Your task to perform on an android device: turn notification dots on Image 0: 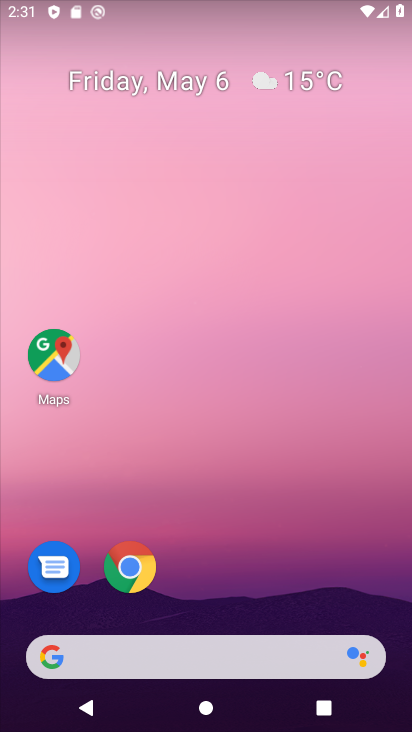
Step 0: drag from (179, 628) to (295, 56)
Your task to perform on an android device: turn notification dots on Image 1: 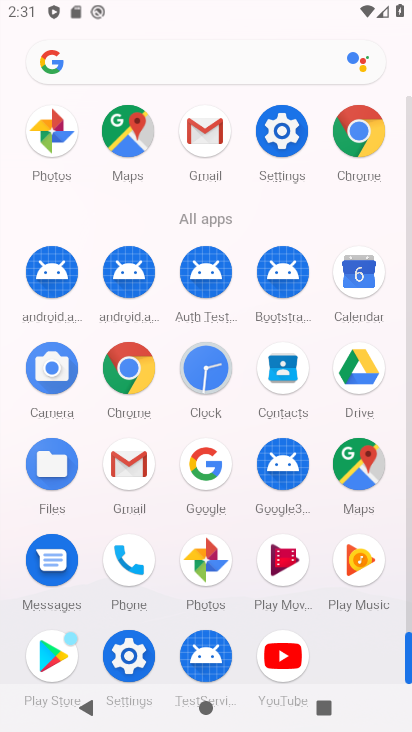
Step 1: click (120, 671)
Your task to perform on an android device: turn notification dots on Image 2: 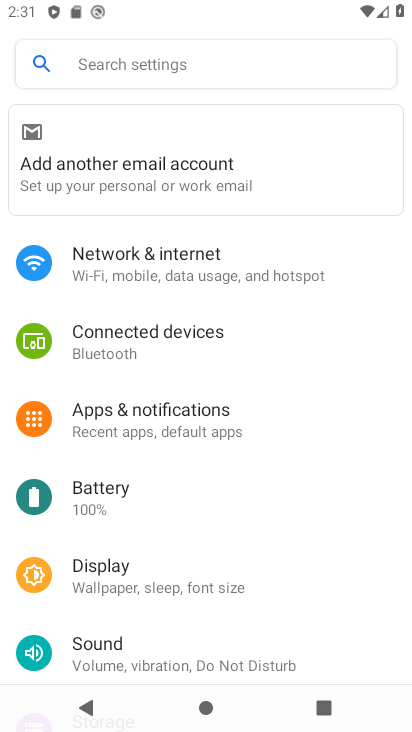
Step 2: click (188, 431)
Your task to perform on an android device: turn notification dots on Image 3: 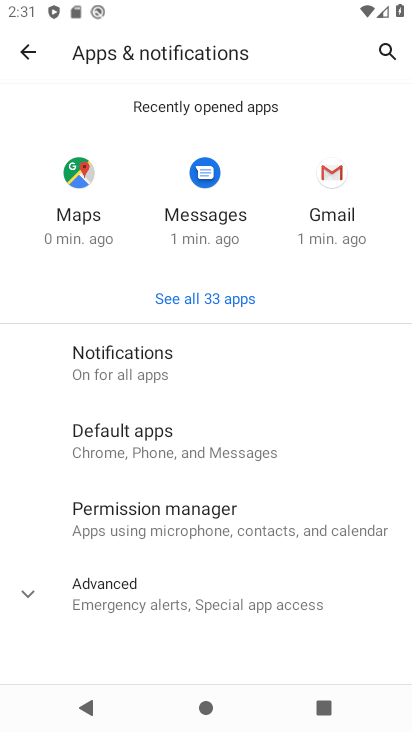
Step 3: click (172, 382)
Your task to perform on an android device: turn notification dots on Image 4: 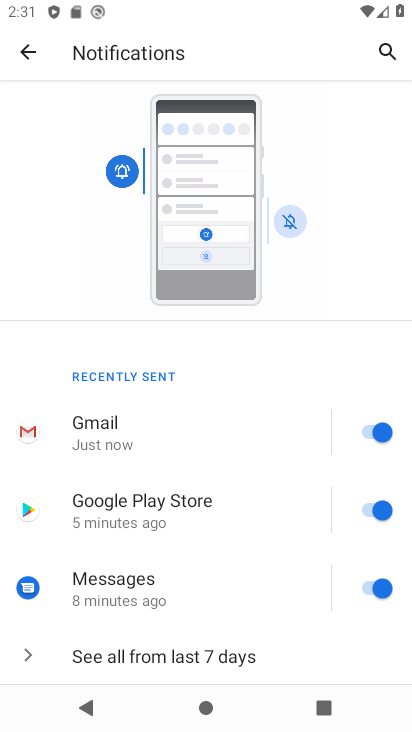
Step 4: drag from (120, 646) to (269, 146)
Your task to perform on an android device: turn notification dots on Image 5: 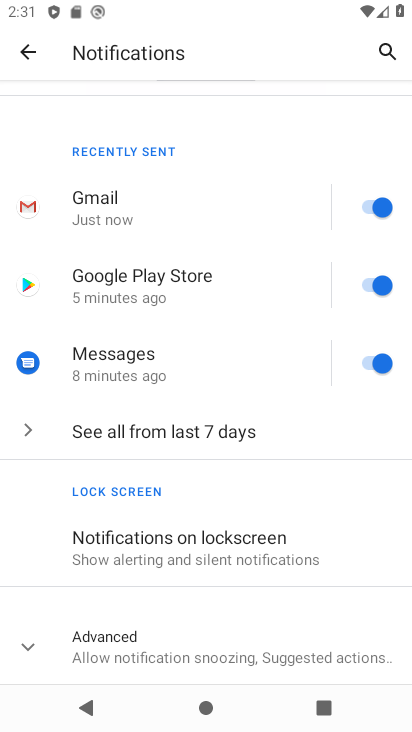
Step 5: click (188, 646)
Your task to perform on an android device: turn notification dots on Image 6: 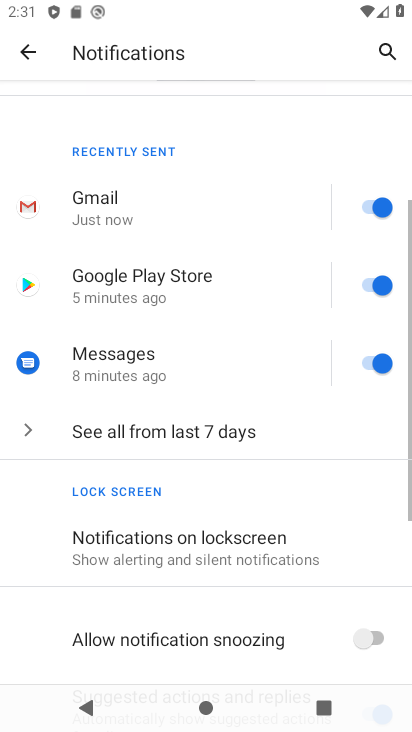
Step 6: task complete